Your task to perform on an android device: Search for "dell alienware" on walmart.com, select the first entry, and add it to the cart. Image 0: 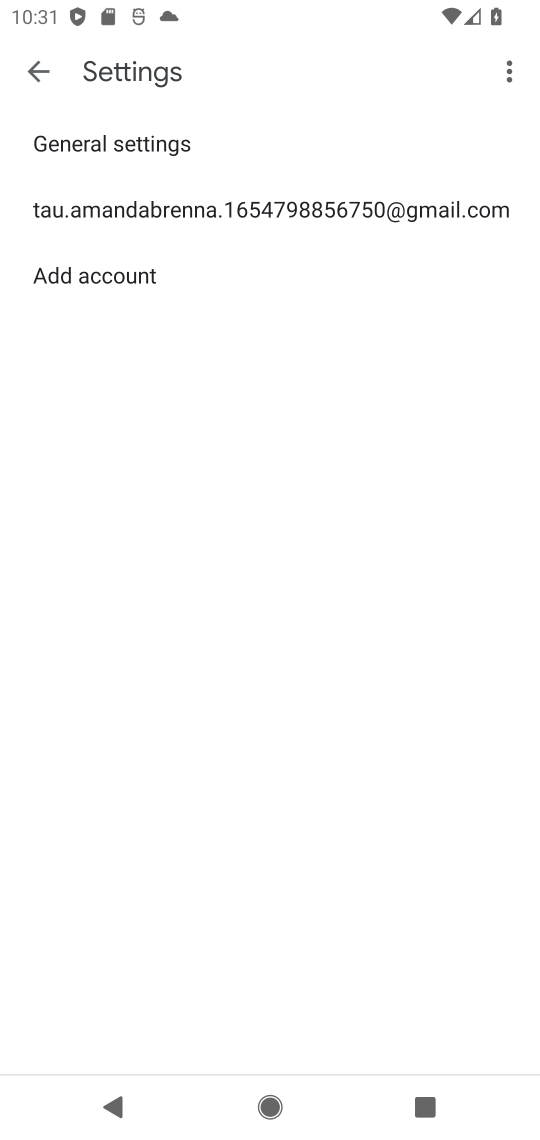
Step 0: press home button
Your task to perform on an android device: Search for "dell alienware" on walmart.com, select the first entry, and add it to the cart. Image 1: 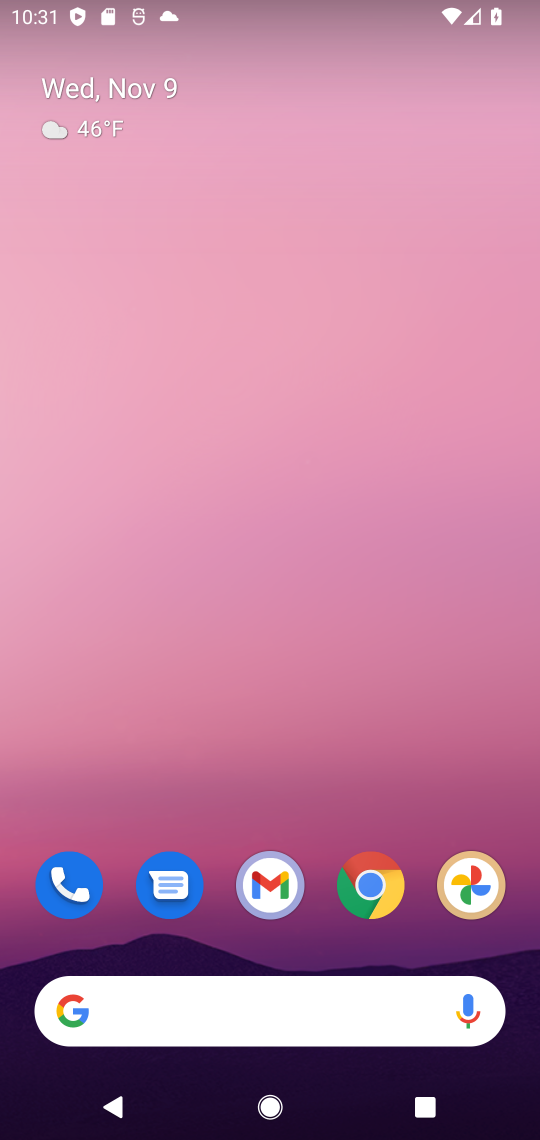
Step 1: click (364, 878)
Your task to perform on an android device: Search for "dell alienware" on walmart.com, select the first entry, and add it to the cart. Image 2: 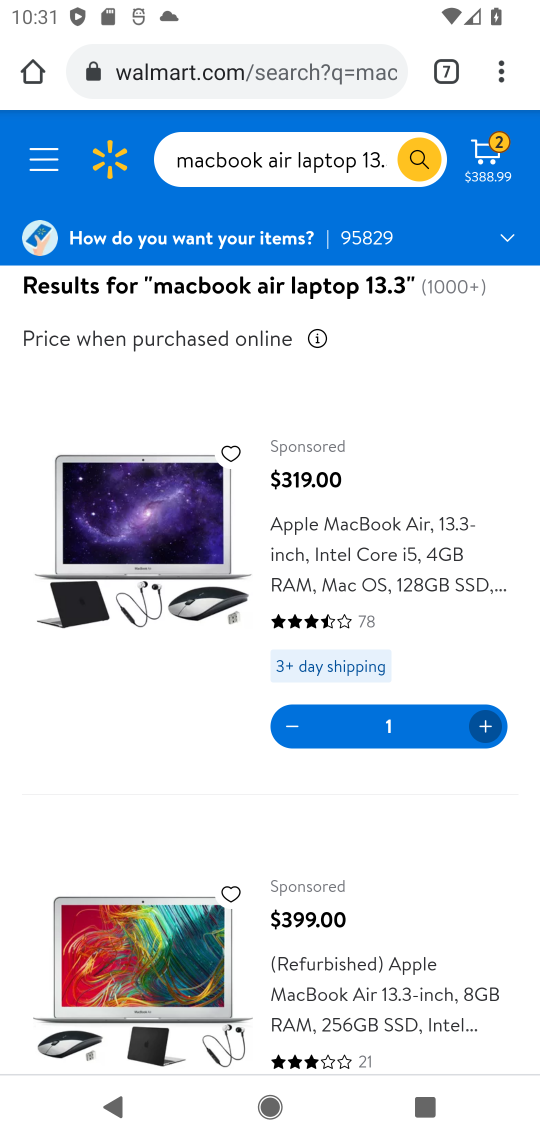
Step 2: click (293, 147)
Your task to perform on an android device: Search for "dell alienware" on walmart.com, select the first entry, and add it to the cart. Image 3: 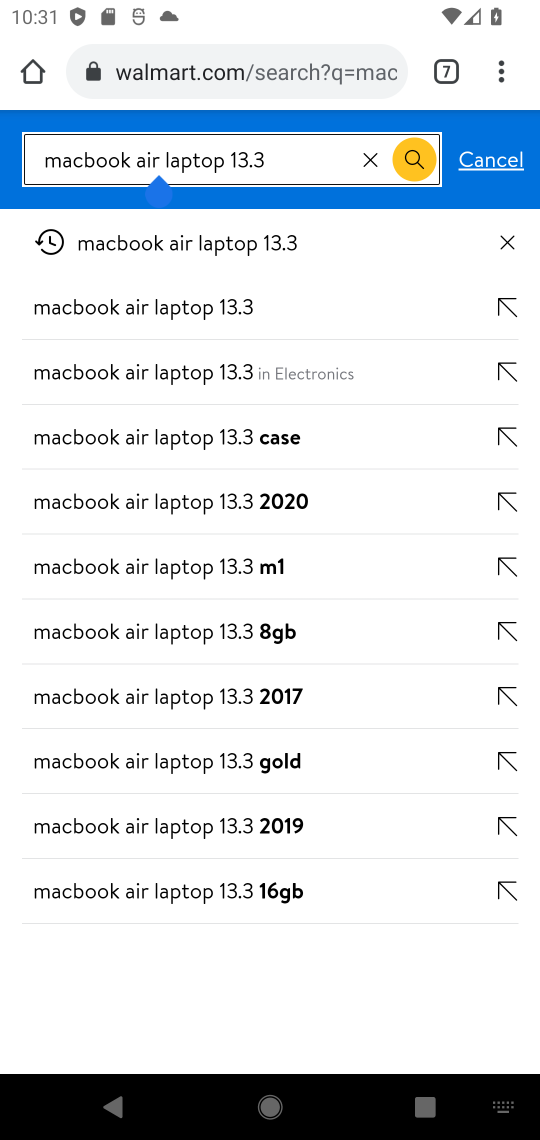
Step 3: click (369, 154)
Your task to perform on an android device: Search for "dell alienware" on walmart.com, select the first entry, and add it to the cart. Image 4: 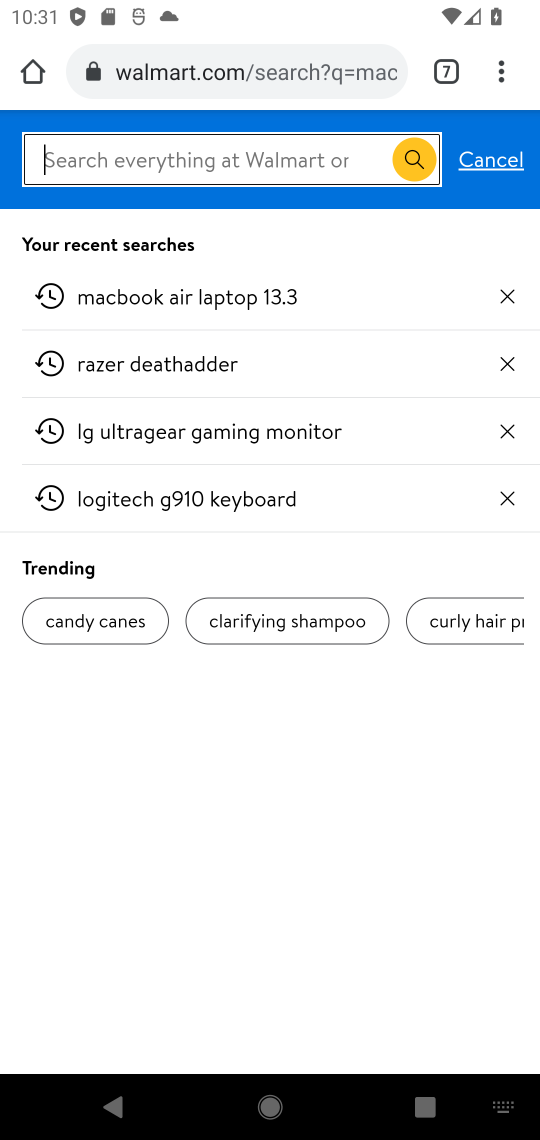
Step 4: type "dell alienware"
Your task to perform on an android device: Search for "dell alienware" on walmart.com, select the first entry, and add it to the cart. Image 5: 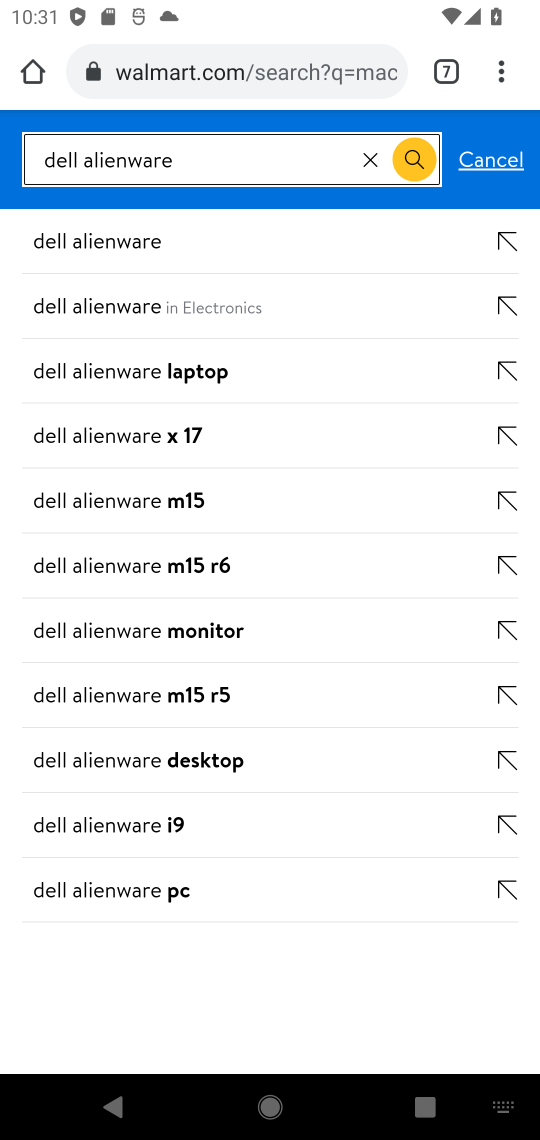
Step 5: click (131, 305)
Your task to perform on an android device: Search for "dell alienware" on walmart.com, select the first entry, and add it to the cart. Image 6: 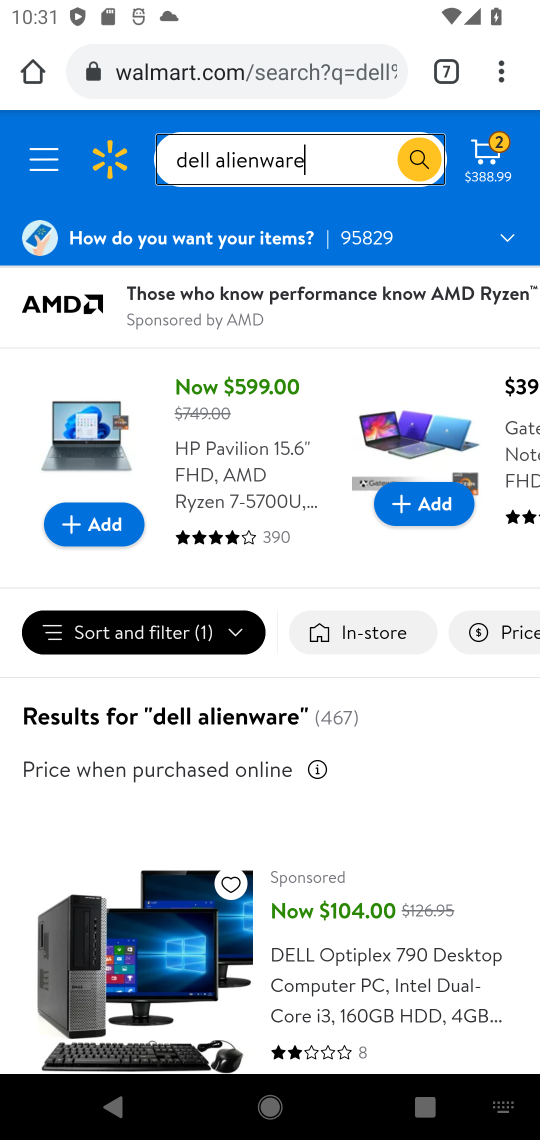
Step 6: drag from (402, 878) to (451, 613)
Your task to perform on an android device: Search for "dell alienware" on walmart.com, select the first entry, and add it to the cart. Image 7: 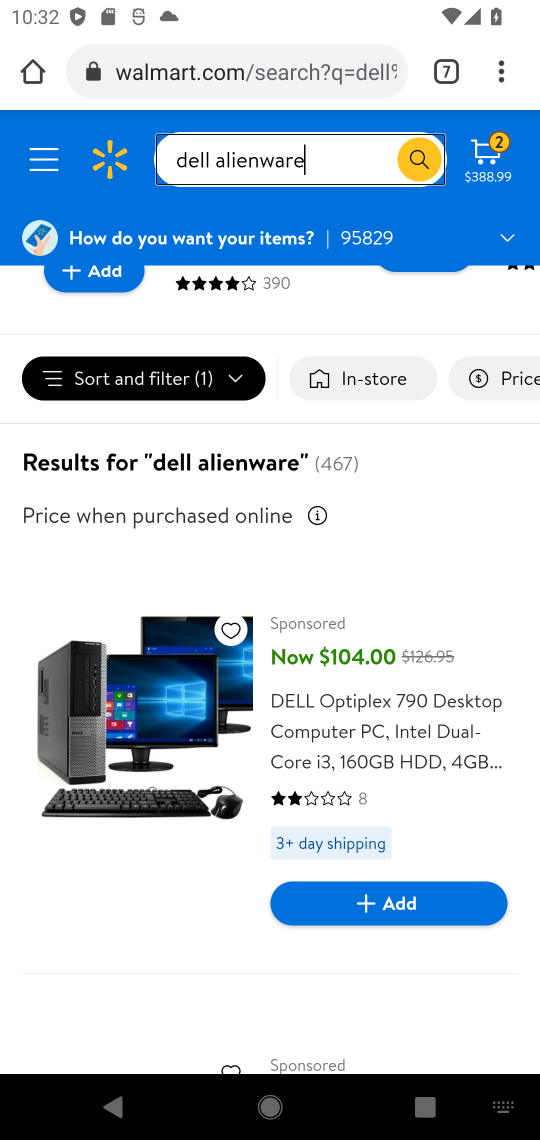
Step 7: drag from (427, 818) to (458, 410)
Your task to perform on an android device: Search for "dell alienware" on walmart.com, select the first entry, and add it to the cart. Image 8: 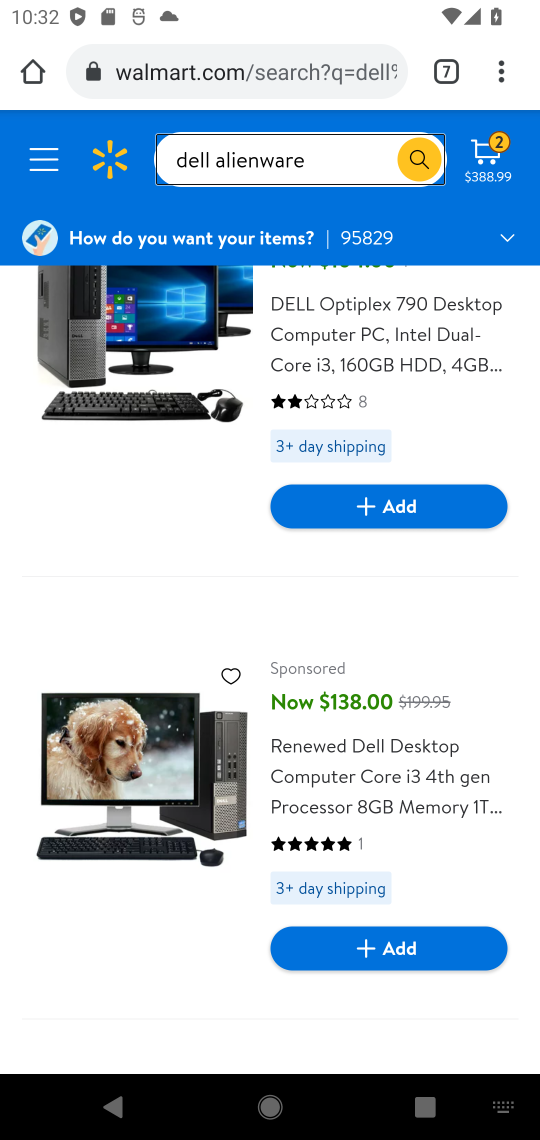
Step 8: drag from (464, 655) to (379, 151)
Your task to perform on an android device: Search for "dell alienware" on walmart.com, select the first entry, and add it to the cart. Image 9: 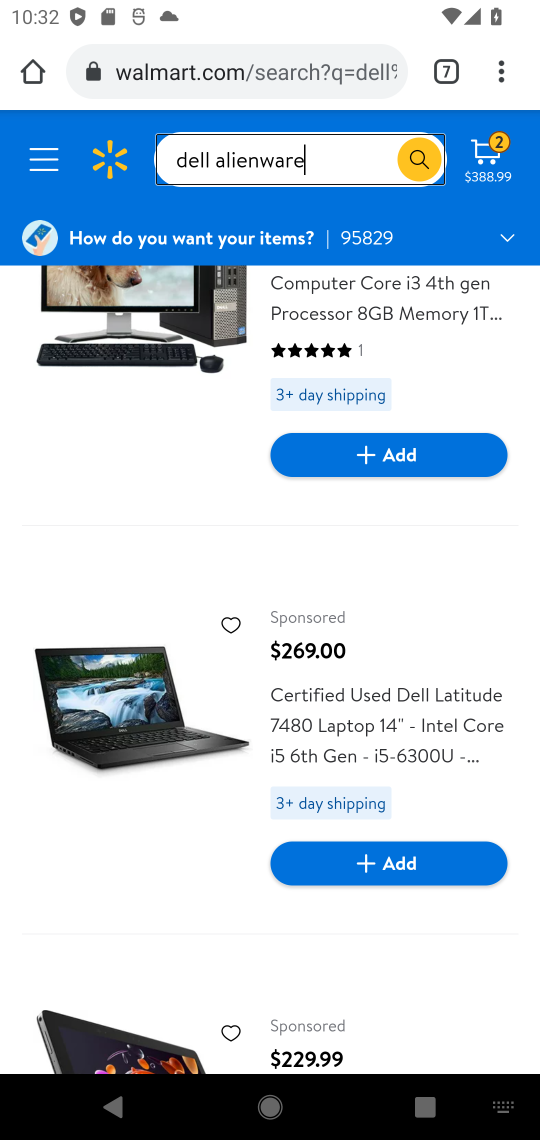
Step 9: drag from (271, 981) to (325, 561)
Your task to perform on an android device: Search for "dell alienware" on walmart.com, select the first entry, and add it to the cart. Image 10: 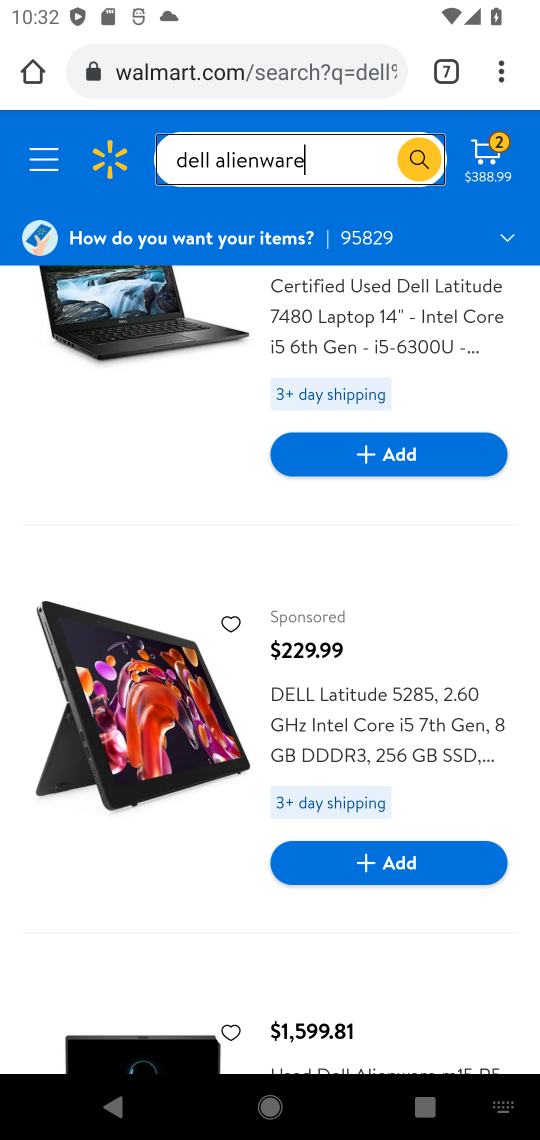
Step 10: drag from (413, 929) to (407, 589)
Your task to perform on an android device: Search for "dell alienware" on walmart.com, select the first entry, and add it to the cart. Image 11: 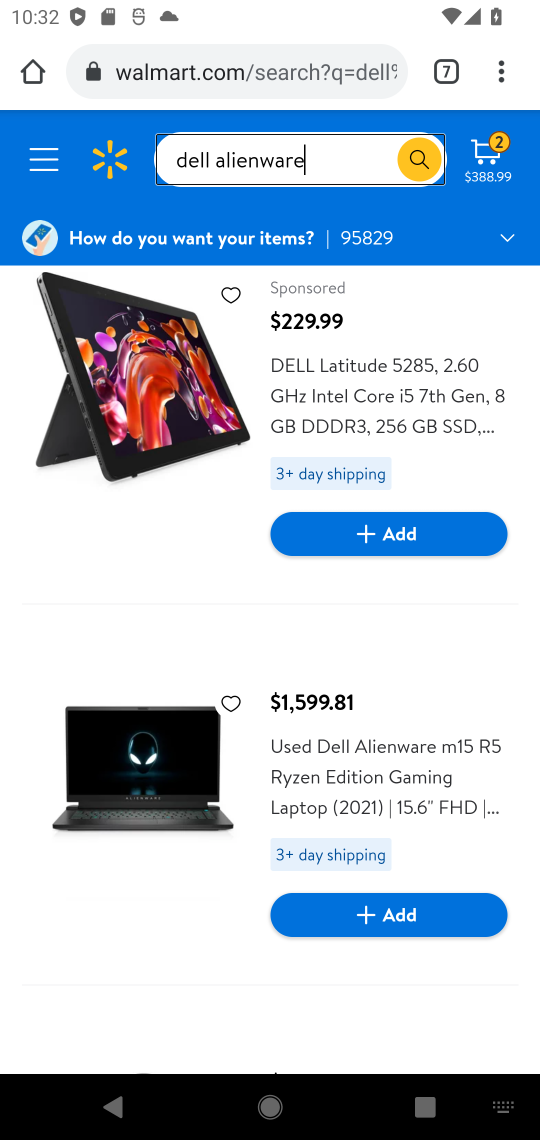
Step 11: click (414, 913)
Your task to perform on an android device: Search for "dell alienware" on walmart.com, select the first entry, and add it to the cart. Image 12: 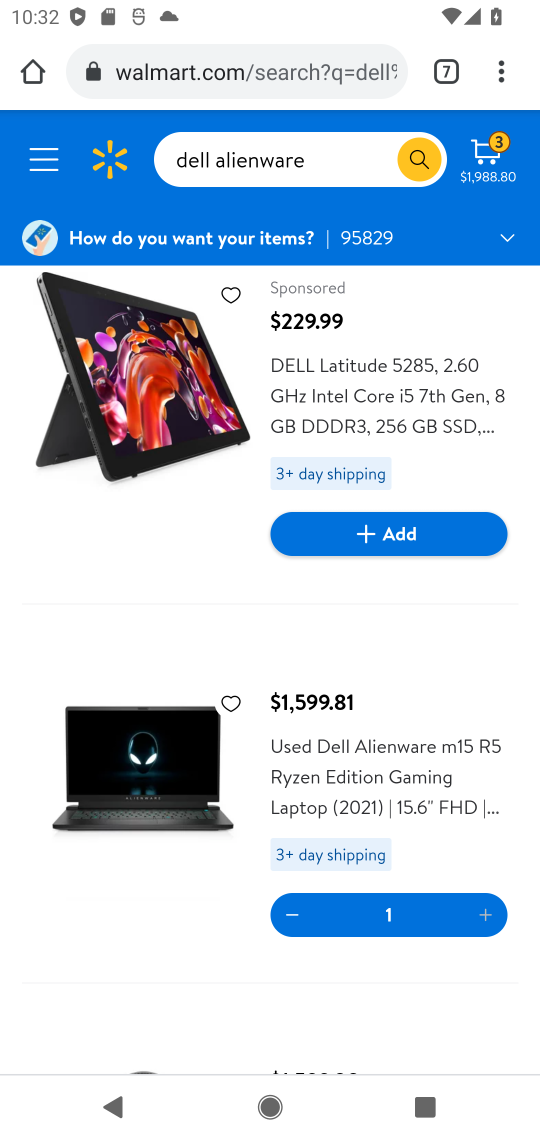
Step 12: task complete